Your task to perform on an android device: Go to calendar. Show me events next week Image 0: 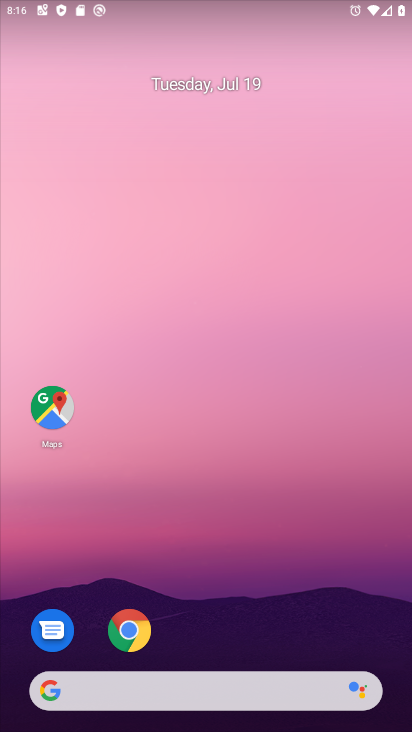
Step 0: drag from (199, 577) to (180, 165)
Your task to perform on an android device: Go to calendar. Show me events next week Image 1: 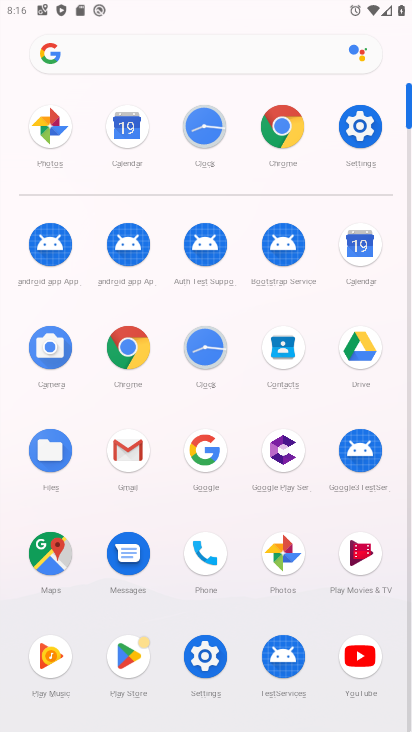
Step 1: click (355, 250)
Your task to perform on an android device: Go to calendar. Show me events next week Image 2: 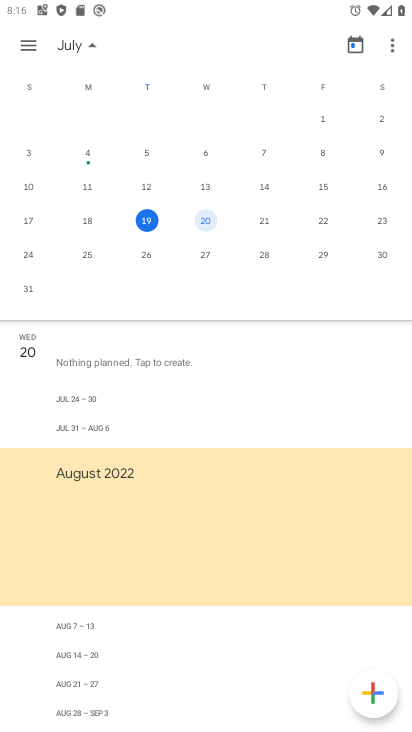
Step 2: click (32, 48)
Your task to perform on an android device: Go to calendar. Show me events next week Image 3: 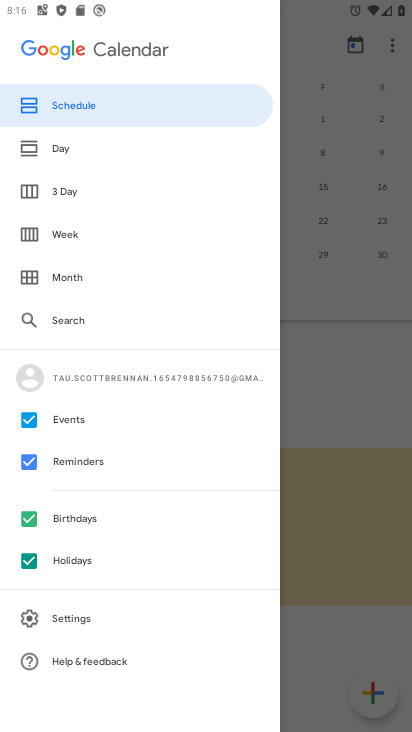
Step 3: click (59, 236)
Your task to perform on an android device: Go to calendar. Show me events next week Image 4: 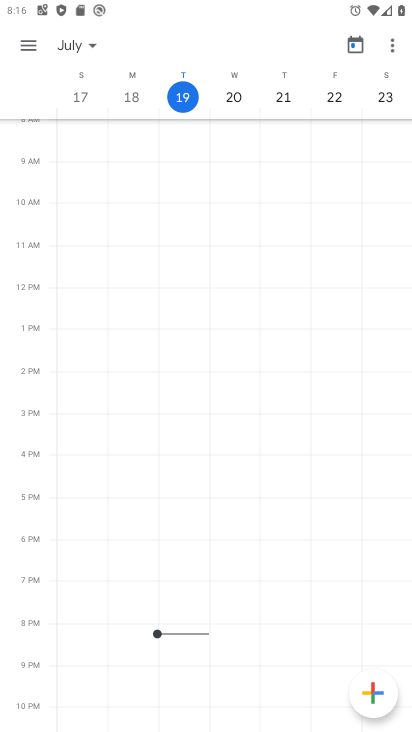
Step 4: click (72, 55)
Your task to perform on an android device: Go to calendar. Show me events next week Image 5: 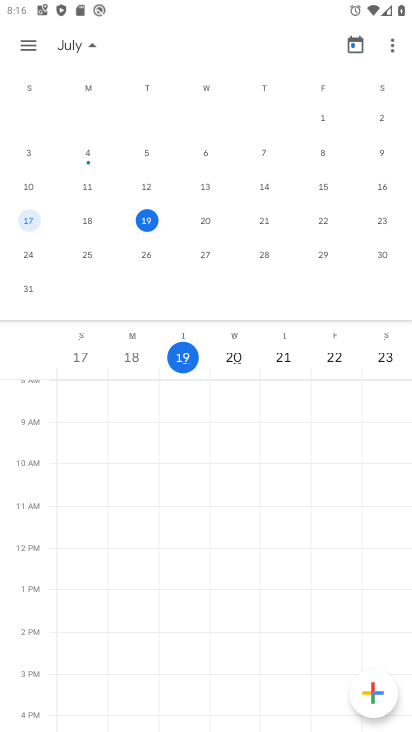
Step 5: click (23, 256)
Your task to perform on an android device: Go to calendar. Show me events next week Image 6: 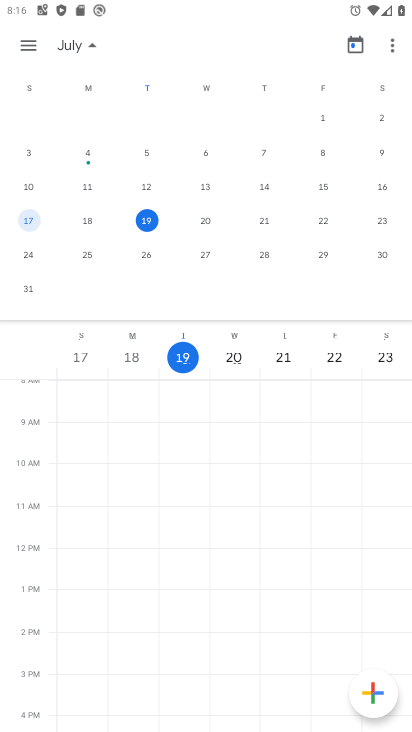
Step 6: click (23, 256)
Your task to perform on an android device: Go to calendar. Show me events next week Image 7: 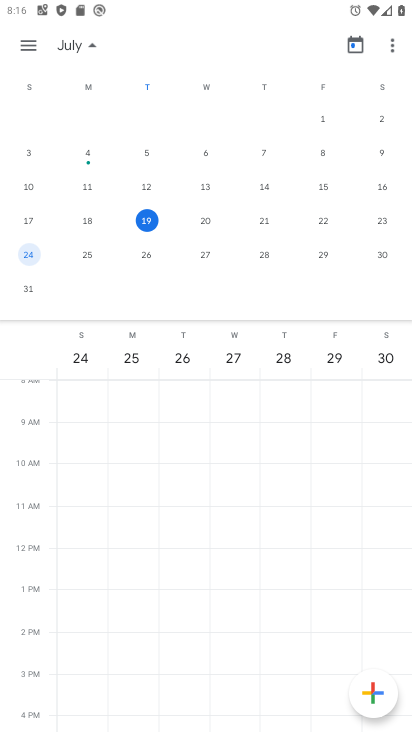
Step 7: task complete